Your task to perform on an android device: toggle wifi Image 0: 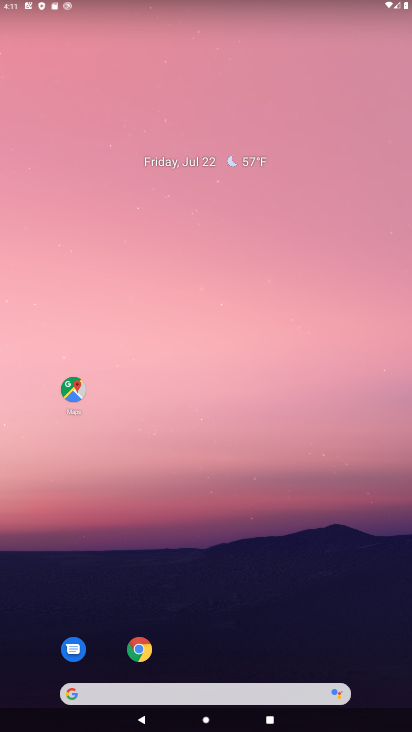
Step 0: click (243, 204)
Your task to perform on an android device: toggle wifi Image 1: 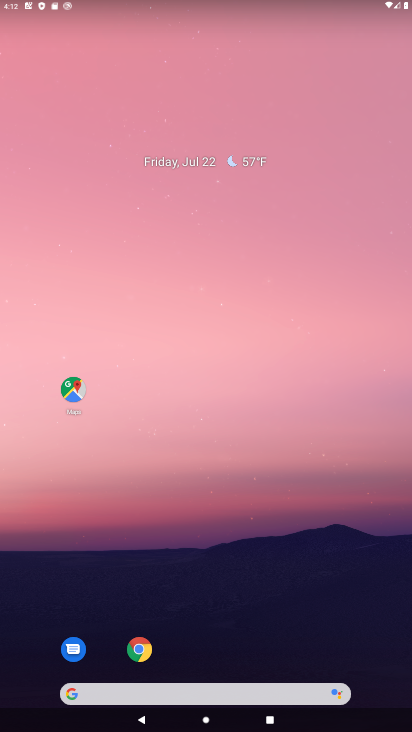
Step 1: drag from (49, 661) to (171, 285)
Your task to perform on an android device: toggle wifi Image 2: 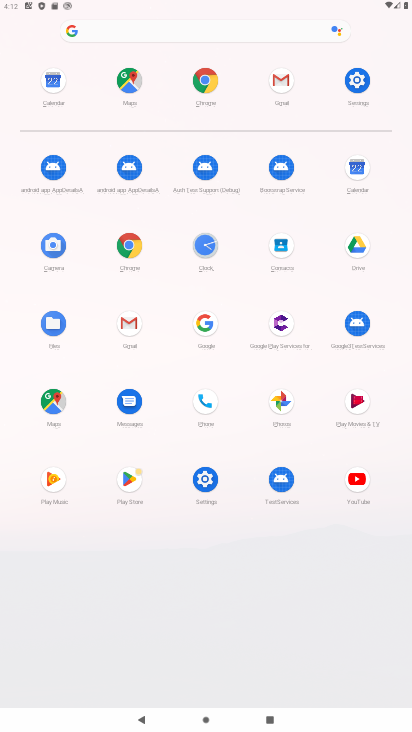
Step 2: click (368, 86)
Your task to perform on an android device: toggle wifi Image 3: 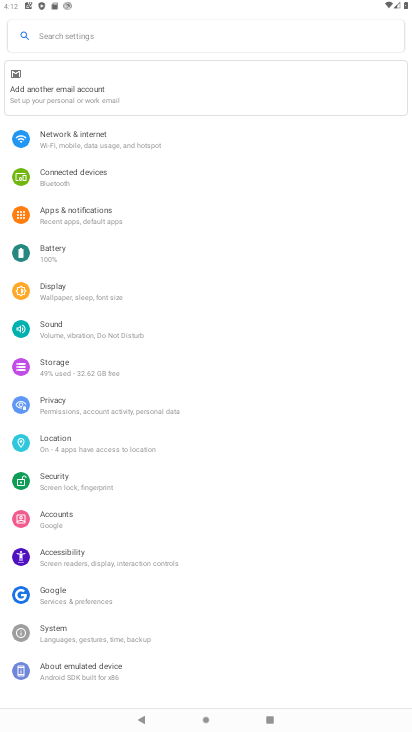
Step 3: click (102, 139)
Your task to perform on an android device: toggle wifi Image 4: 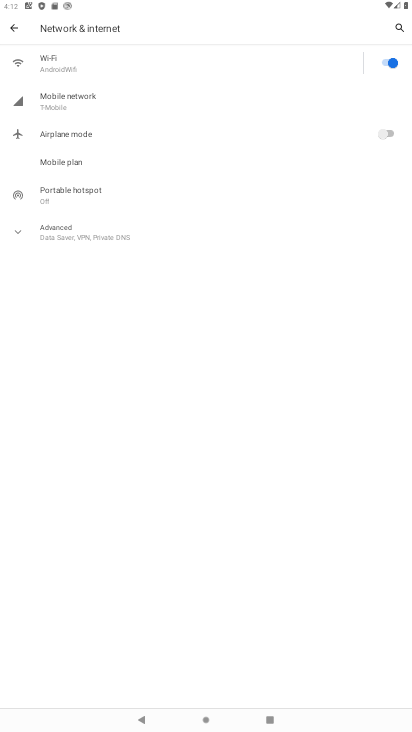
Step 4: task complete